Your task to perform on an android device: turn on showing notifications on the lock screen Image 0: 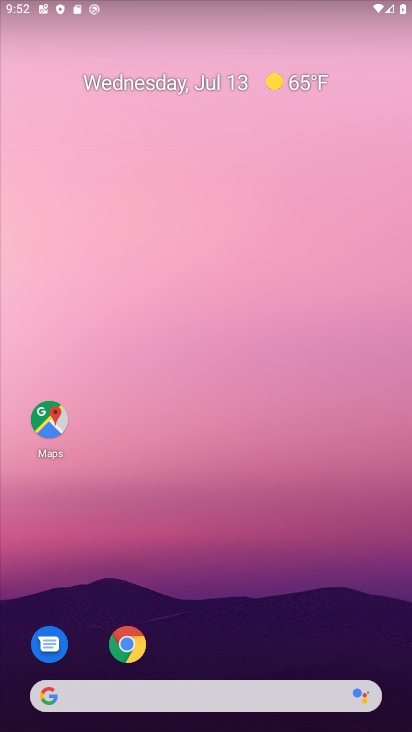
Step 0: drag from (314, 589) to (267, 58)
Your task to perform on an android device: turn on showing notifications on the lock screen Image 1: 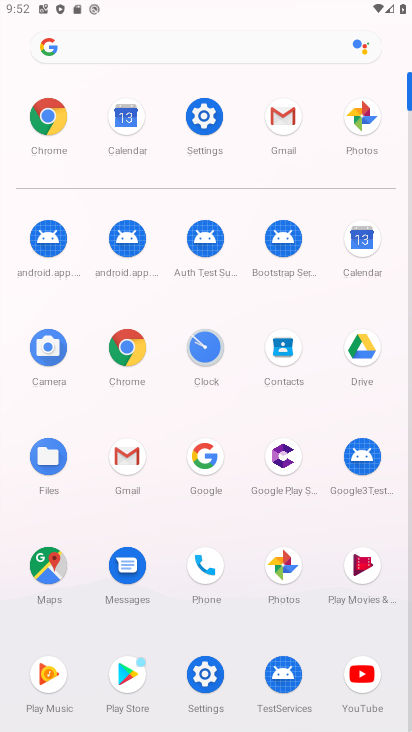
Step 1: click (203, 126)
Your task to perform on an android device: turn on showing notifications on the lock screen Image 2: 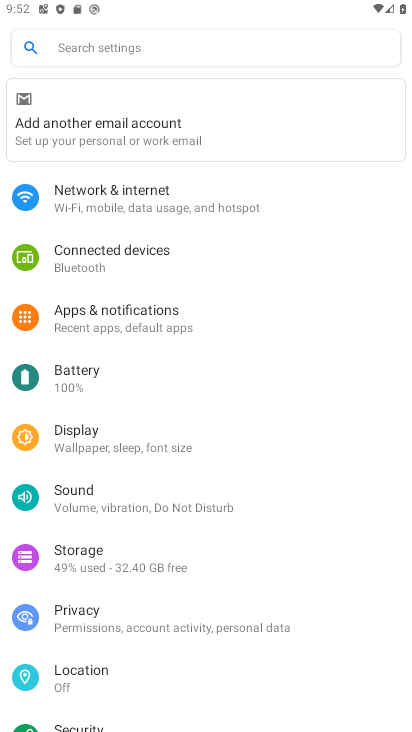
Step 2: click (153, 324)
Your task to perform on an android device: turn on showing notifications on the lock screen Image 3: 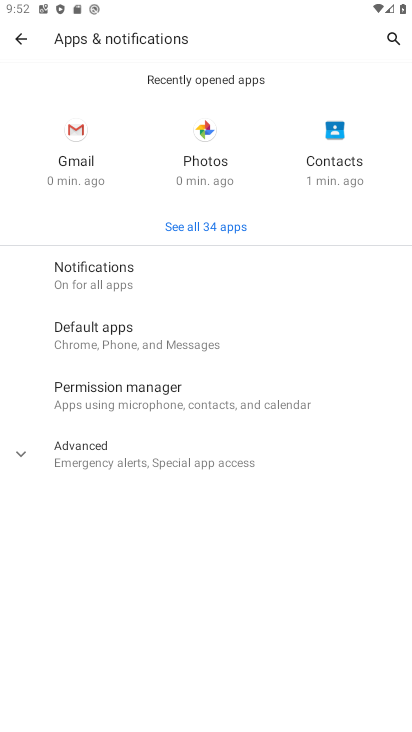
Step 3: click (66, 458)
Your task to perform on an android device: turn on showing notifications on the lock screen Image 4: 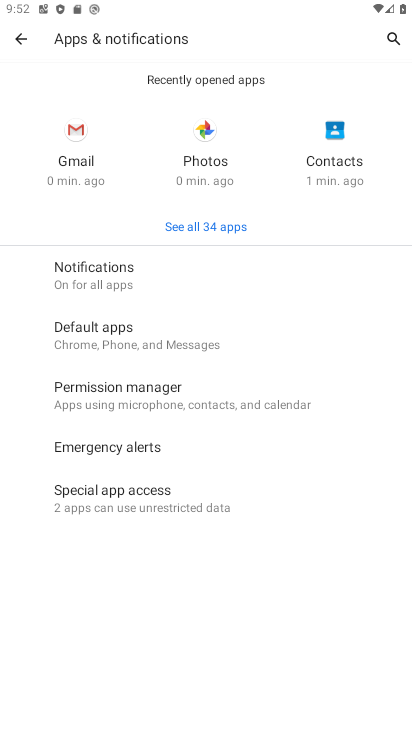
Step 4: click (125, 285)
Your task to perform on an android device: turn on showing notifications on the lock screen Image 5: 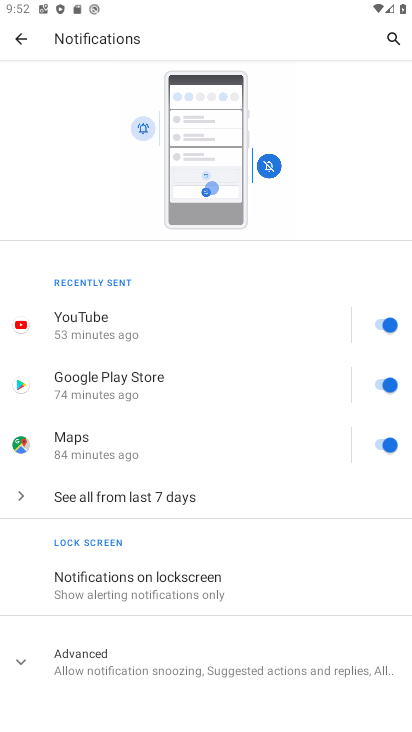
Step 5: click (155, 590)
Your task to perform on an android device: turn on showing notifications on the lock screen Image 6: 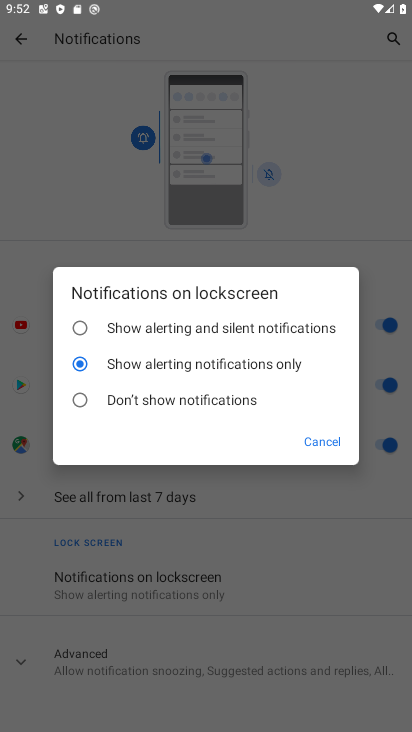
Step 6: click (112, 333)
Your task to perform on an android device: turn on showing notifications on the lock screen Image 7: 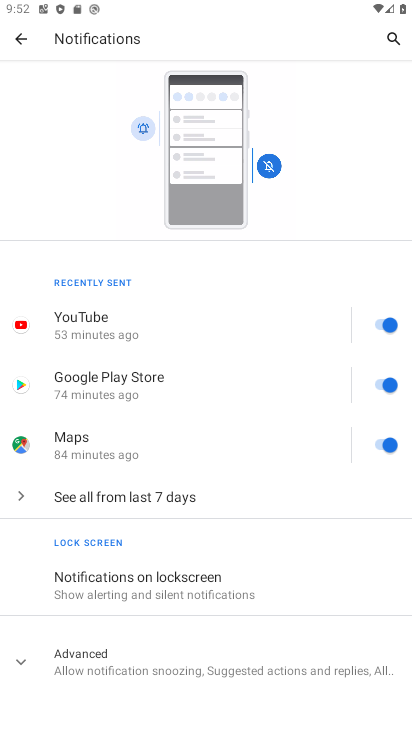
Step 7: task complete